Your task to perform on an android device: Go to Wikipedia Image 0: 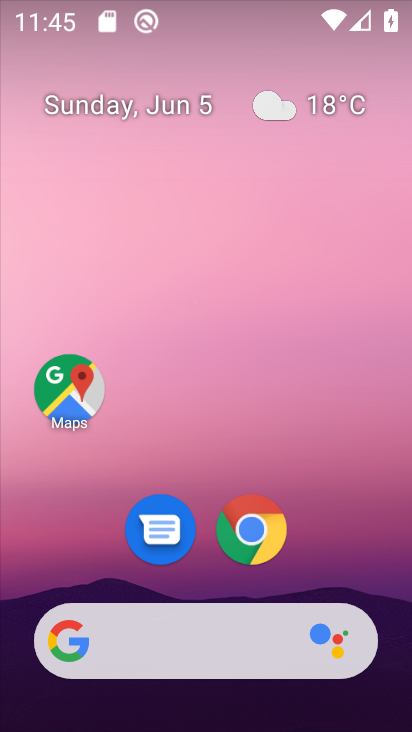
Step 0: click (247, 528)
Your task to perform on an android device: Go to Wikipedia Image 1: 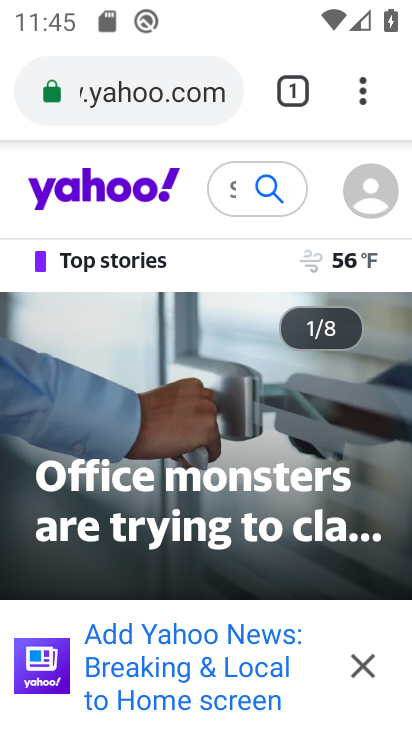
Step 1: click (145, 77)
Your task to perform on an android device: Go to Wikipedia Image 2: 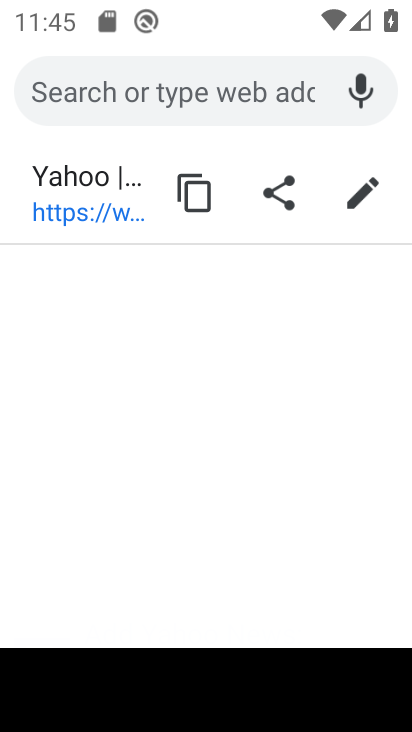
Step 2: type "wikipedia"
Your task to perform on an android device: Go to Wikipedia Image 3: 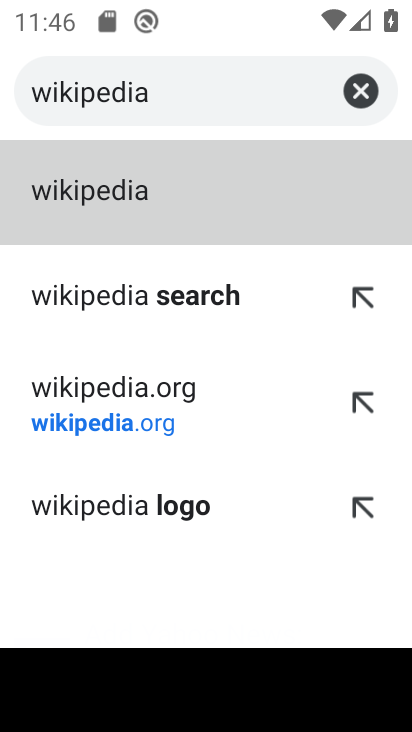
Step 3: click (93, 201)
Your task to perform on an android device: Go to Wikipedia Image 4: 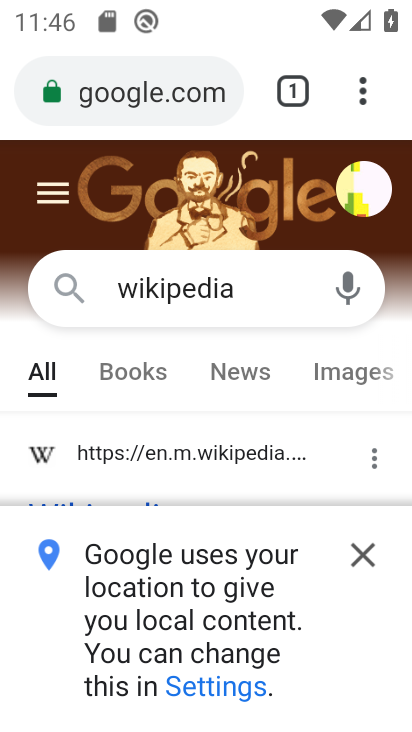
Step 4: drag from (183, 260) to (178, 190)
Your task to perform on an android device: Go to Wikipedia Image 5: 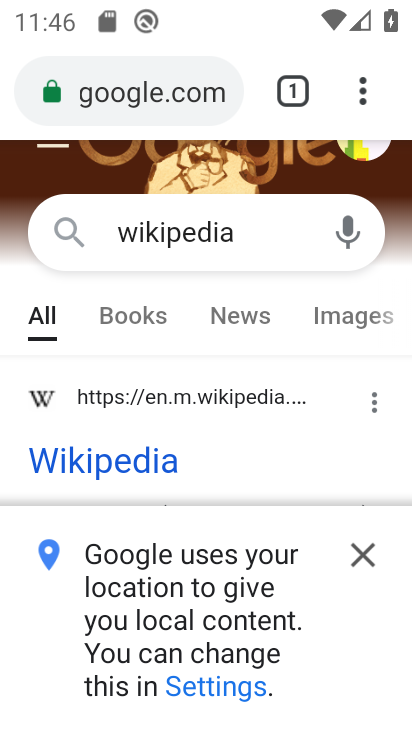
Step 5: click (99, 461)
Your task to perform on an android device: Go to Wikipedia Image 6: 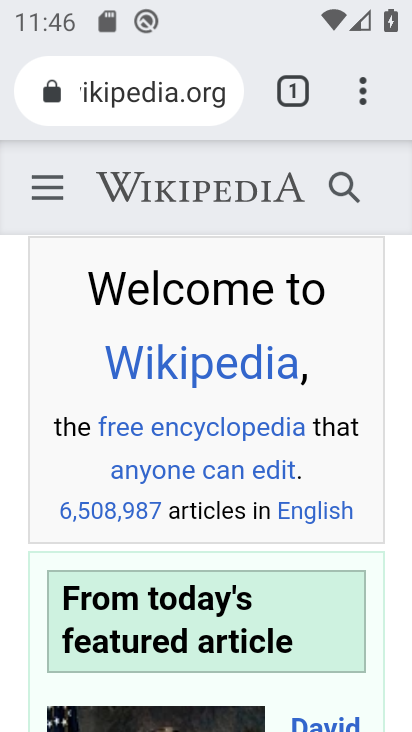
Step 6: task complete